Your task to perform on an android device: Toggle the flashlight Image 0: 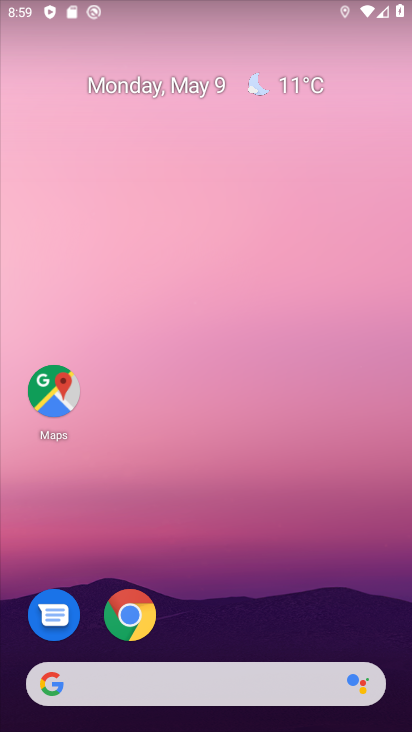
Step 0: drag from (272, 595) to (218, 1)
Your task to perform on an android device: Toggle the flashlight Image 1: 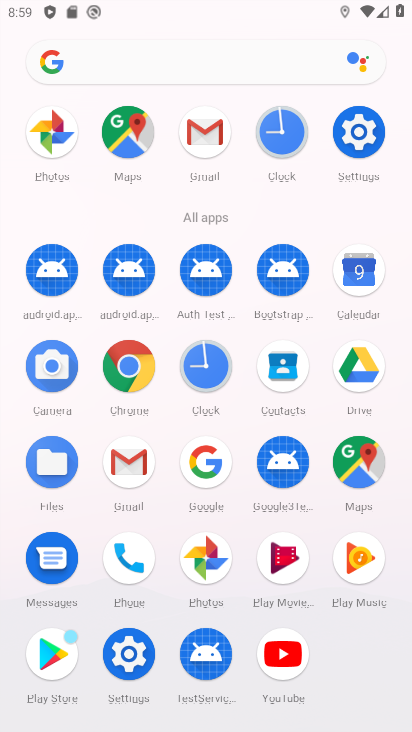
Step 1: drag from (7, 617) to (12, 333)
Your task to perform on an android device: Toggle the flashlight Image 2: 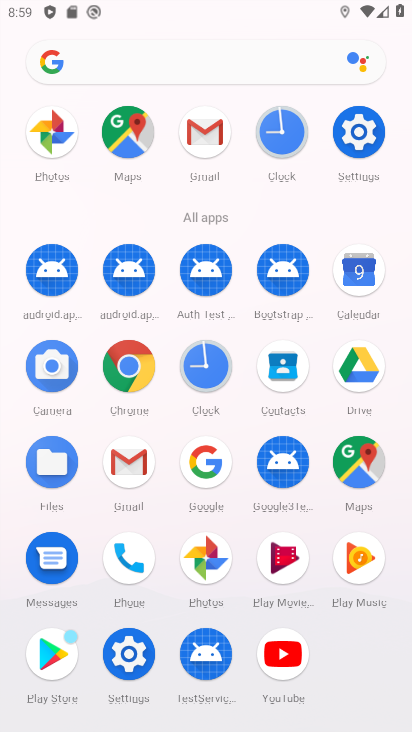
Step 2: click (356, 129)
Your task to perform on an android device: Toggle the flashlight Image 3: 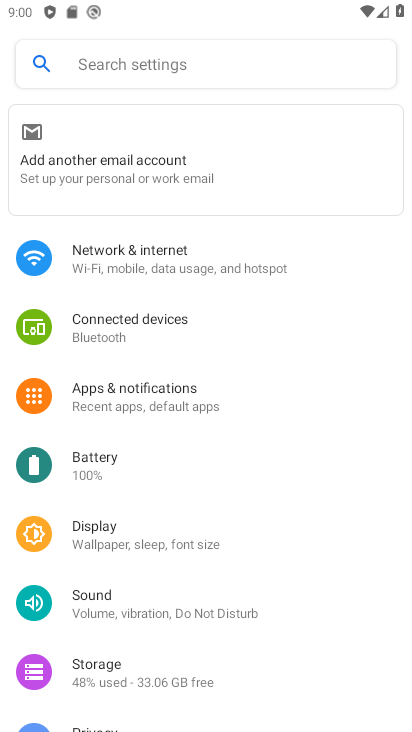
Step 3: click (247, 253)
Your task to perform on an android device: Toggle the flashlight Image 4: 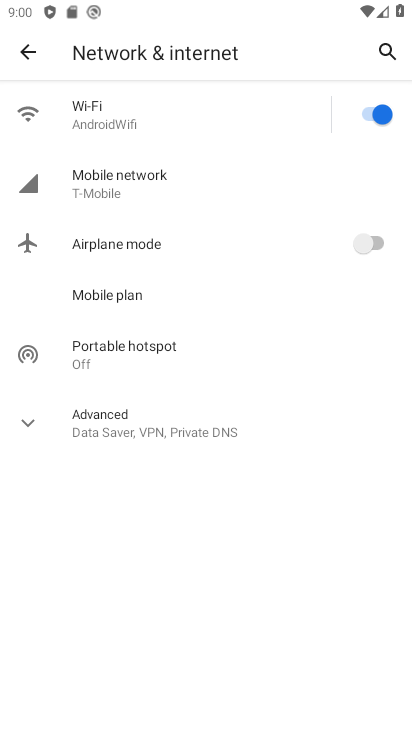
Step 4: click (22, 429)
Your task to perform on an android device: Toggle the flashlight Image 5: 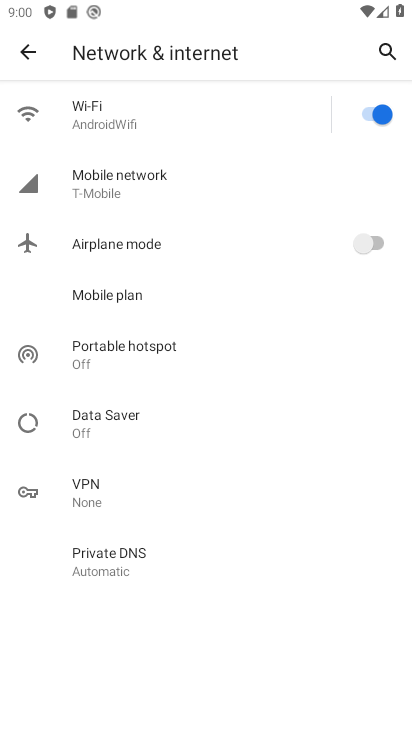
Step 5: task complete